Your task to perform on an android device: Search for the new iphone 13 pro on Etsy. Image 0: 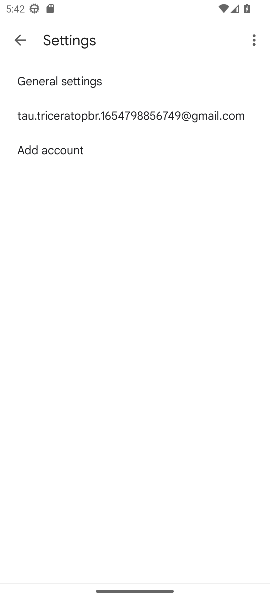
Step 0: press home button
Your task to perform on an android device: Search for the new iphone 13 pro on Etsy. Image 1: 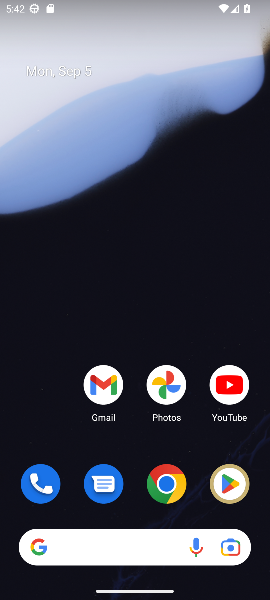
Step 1: click (174, 484)
Your task to perform on an android device: Search for the new iphone 13 pro on Etsy. Image 2: 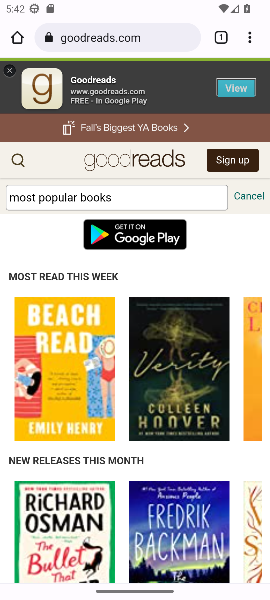
Step 2: click (163, 47)
Your task to perform on an android device: Search for the new iphone 13 pro on Etsy. Image 3: 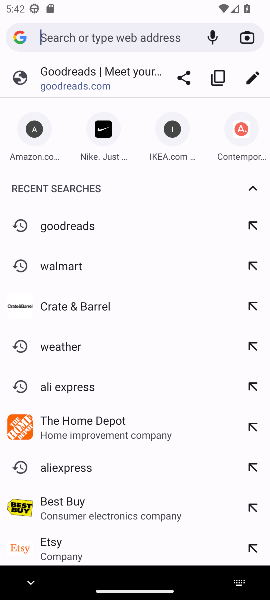
Step 3: type "Etsy"
Your task to perform on an android device: Search for the new iphone 13 pro on Etsy. Image 4: 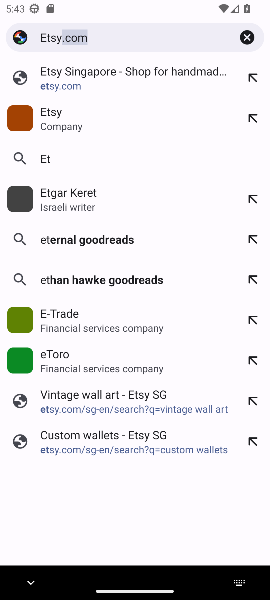
Step 4: press enter
Your task to perform on an android device: Search for the new iphone 13 pro on Etsy. Image 5: 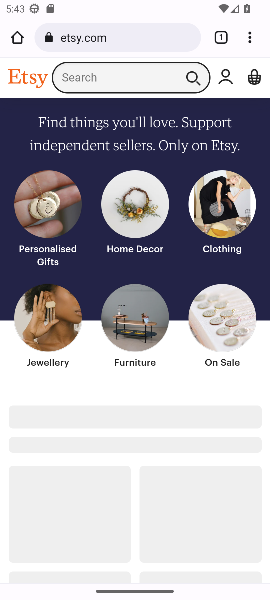
Step 5: click (160, 79)
Your task to perform on an android device: Search for the new iphone 13 pro on Etsy. Image 6: 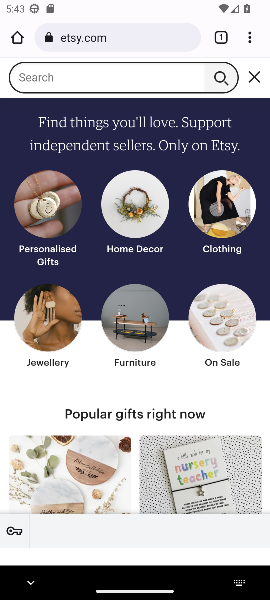
Step 6: press enter
Your task to perform on an android device: Search for the new iphone 13 pro on Etsy. Image 7: 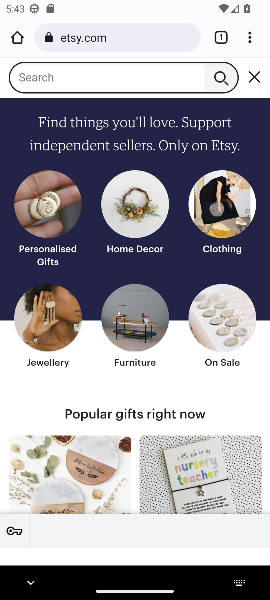
Step 7: type "new iphone 13 pro"
Your task to perform on an android device: Search for the new iphone 13 pro on Etsy. Image 8: 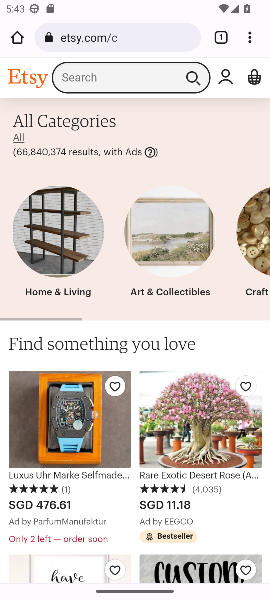
Step 8: drag from (131, 519) to (201, 401)
Your task to perform on an android device: Search for the new iphone 13 pro on Etsy. Image 9: 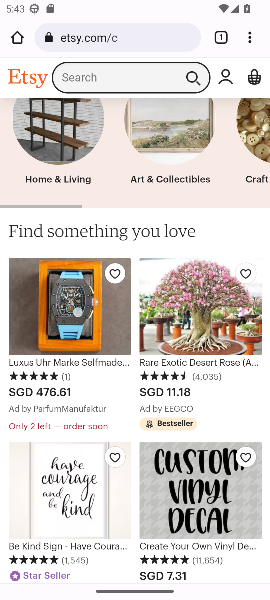
Step 9: drag from (97, 464) to (85, 503)
Your task to perform on an android device: Search for the new iphone 13 pro on Etsy. Image 10: 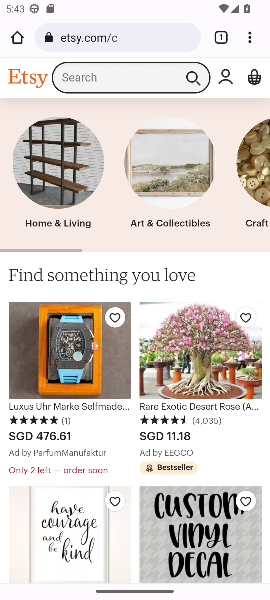
Step 10: click (115, 63)
Your task to perform on an android device: Search for the new iphone 13 pro on Etsy. Image 11: 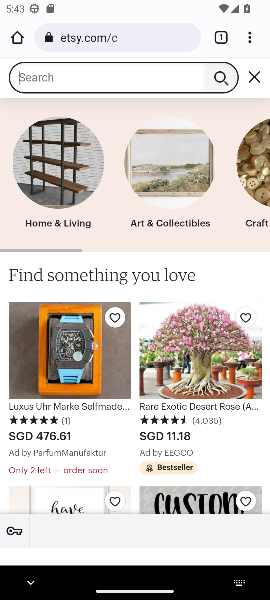
Step 11: press enter
Your task to perform on an android device: Search for the new iphone 13 pro on Etsy. Image 12: 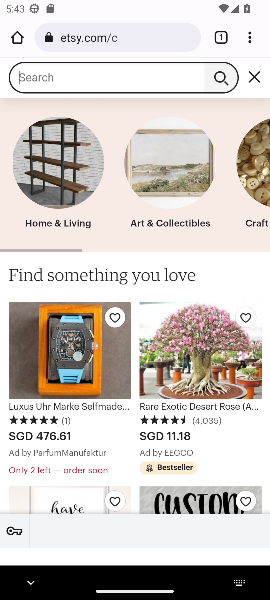
Step 12: type "iphone 13 pro"
Your task to perform on an android device: Search for the new iphone 13 pro on Etsy. Image 13: 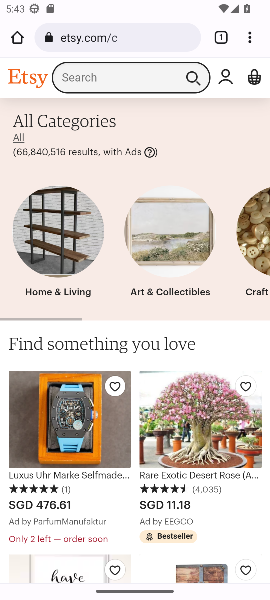
Step 13: task complete